Your task to perform on an android device: read, delete, or share a saved page in the chrome app Image 0: 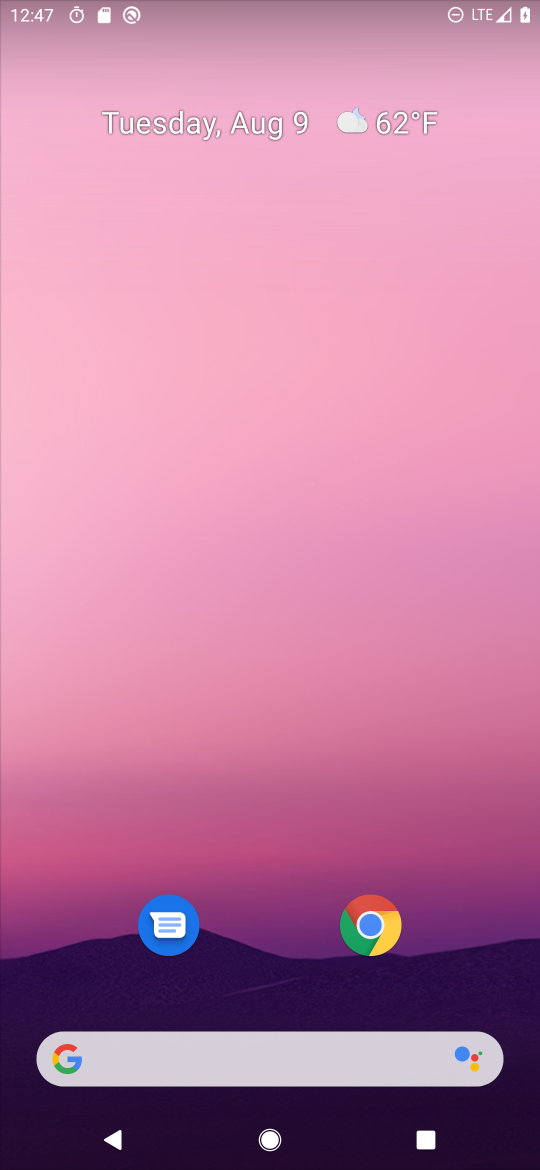
Step 0: drag from (356, 622) to (476, 9)
Your task to perform on an android device: read, delete, or share a saved page in the chrome app Image 1: 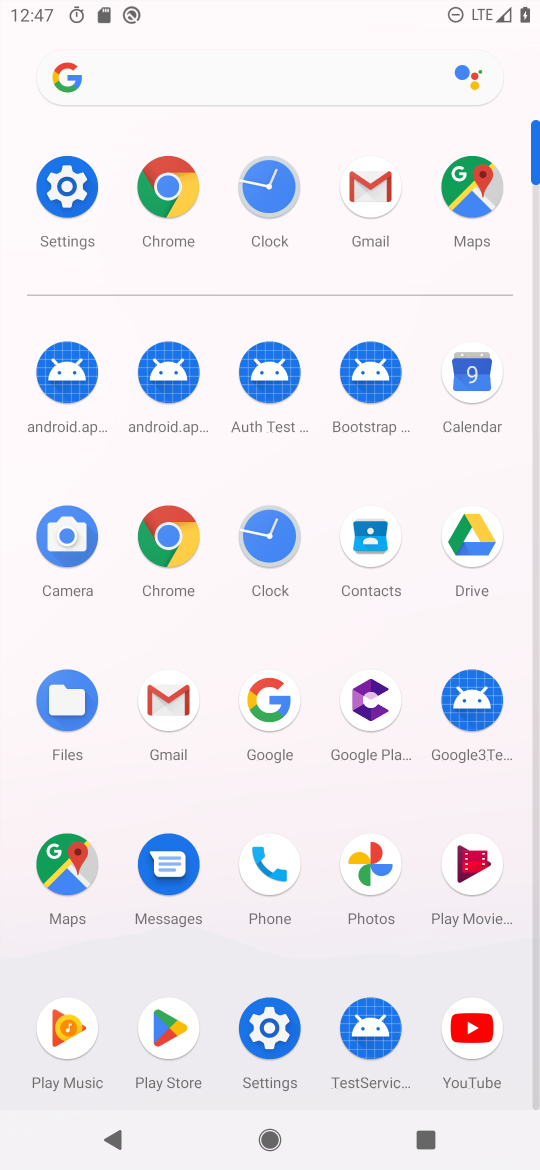
Step 1: click (162, 538)
Your task to perform on an android device: read, delete, or share a saved page in the chrome app Image 2: 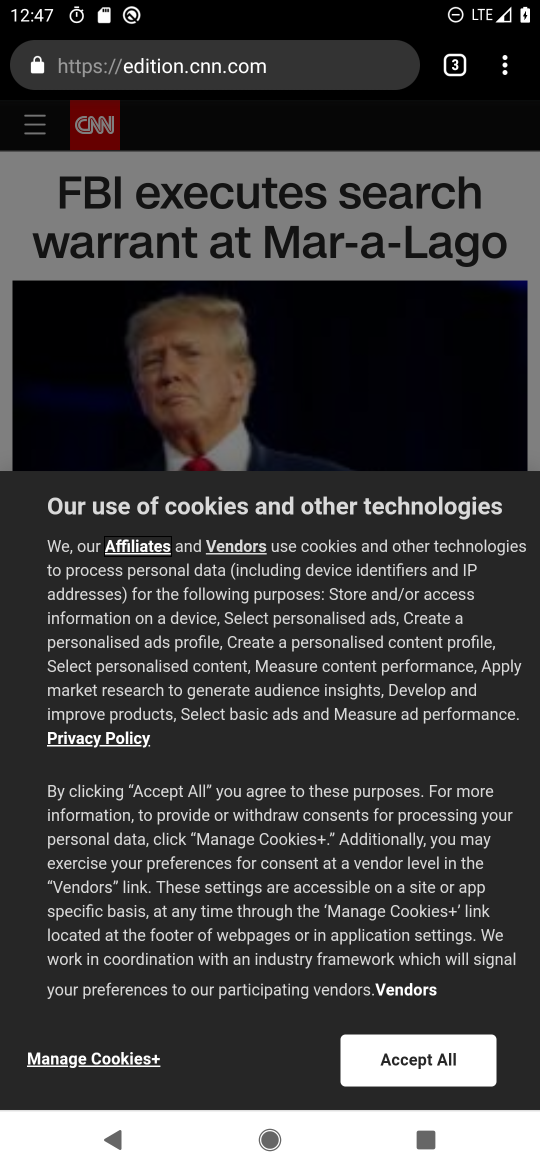
Step 2: task complete